Your task to perform on an android device: Search for logitech g502 on target, select the first entry, add it to the cart, then select checkout. Image 0: 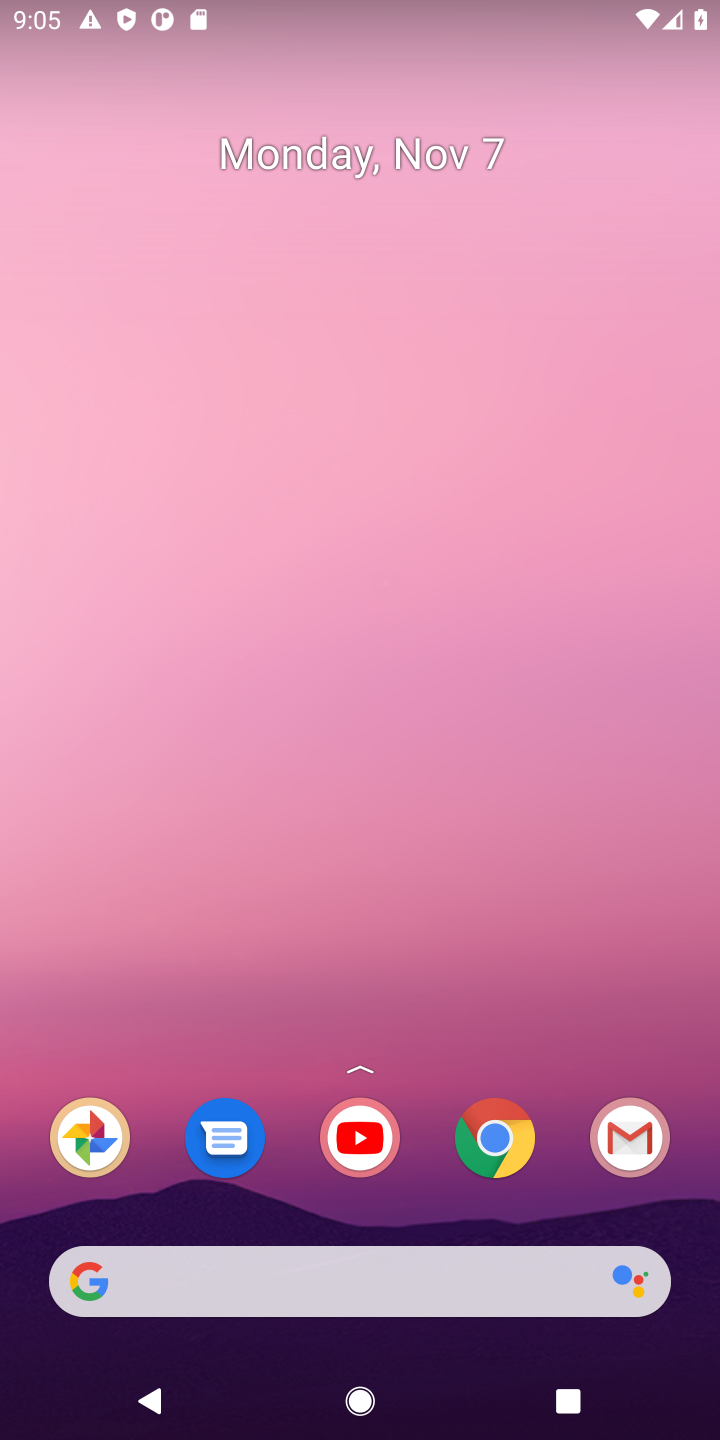
Step 0: click (430, 219)
Your task to perform on an android device: Search for logitech g502 on target, select the first entry, add it to the cart, then select checkout. Image 1: 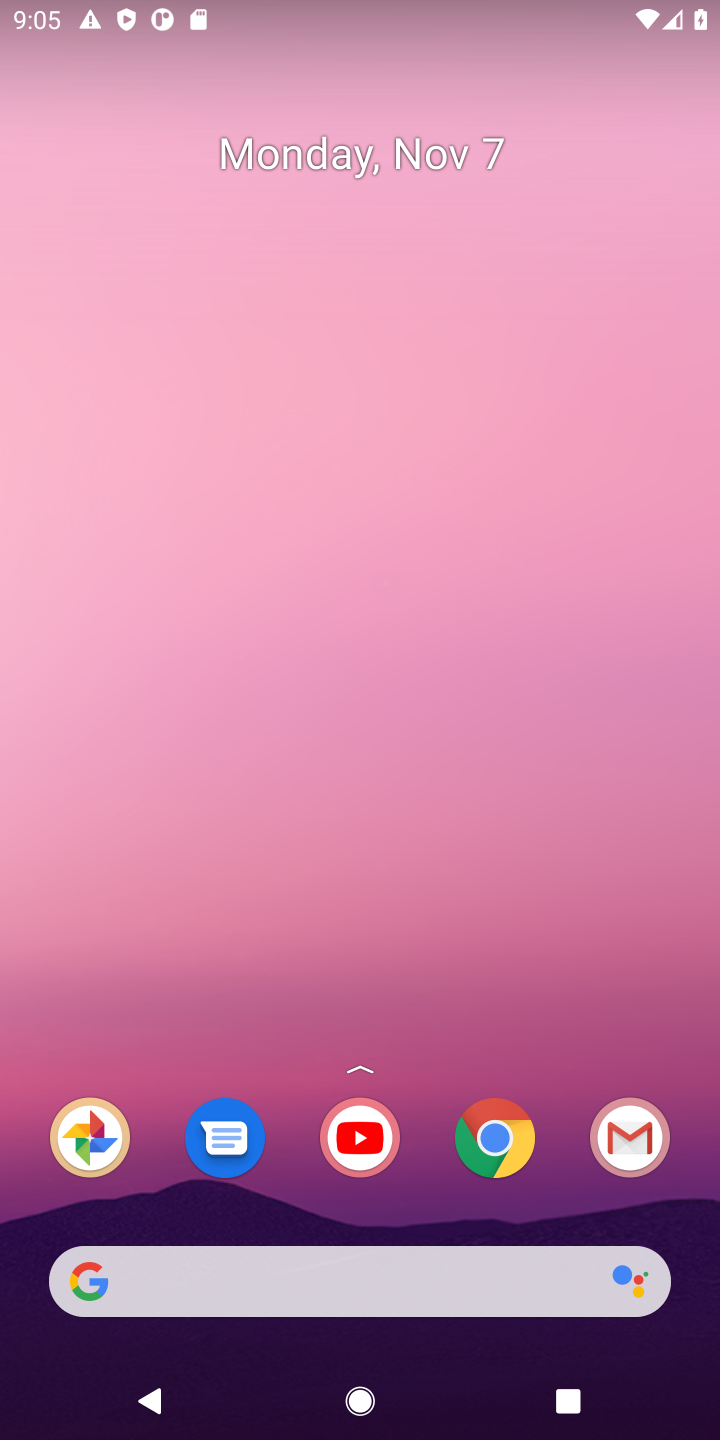
Step 1: drag from (426, 1204) to (481, 234)
Your task to perform on an android device: Search for logitech g502 on target, select the first entry, add it to the cart, then select checkout. Image 2: 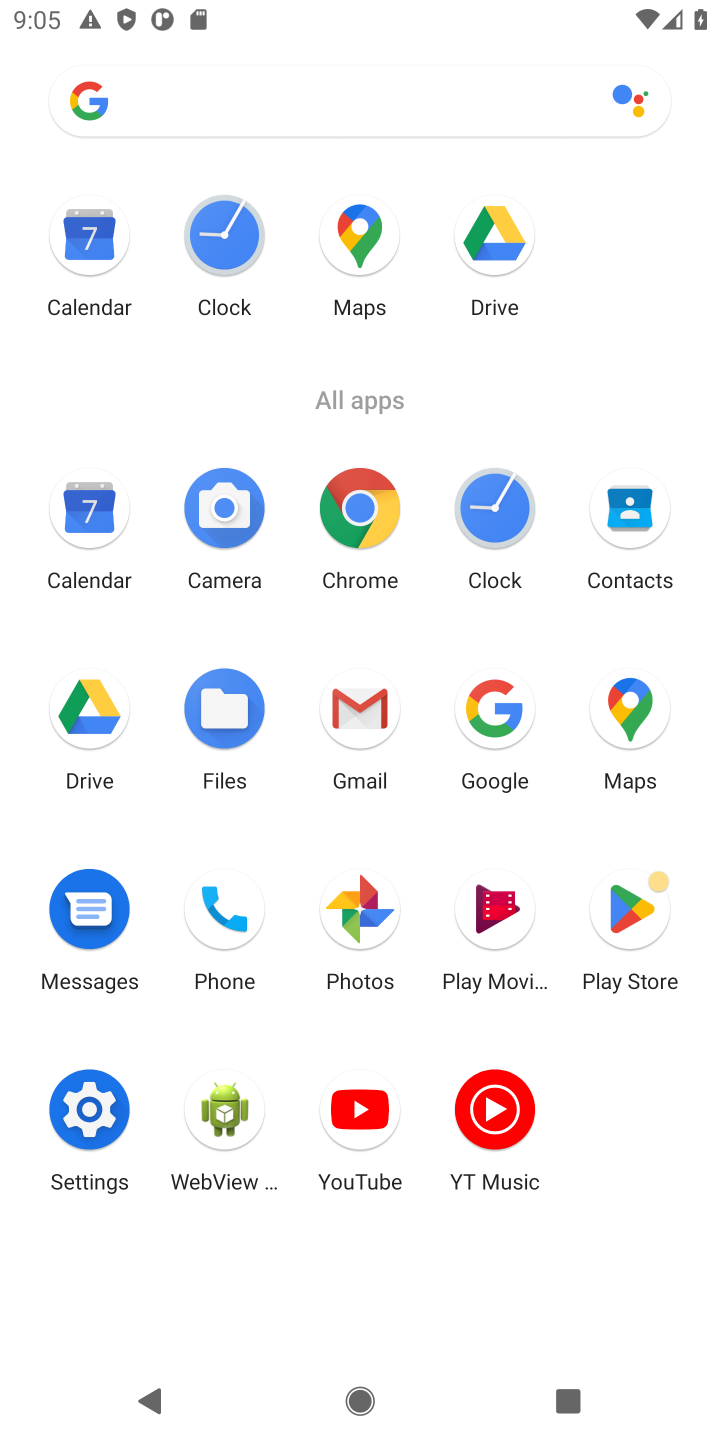
Step 2: click (364, 528)
Your task to perform on an android device: Search for logitech g502 on target, select the first entry, add it to the cart, then select checkout. Image 3: 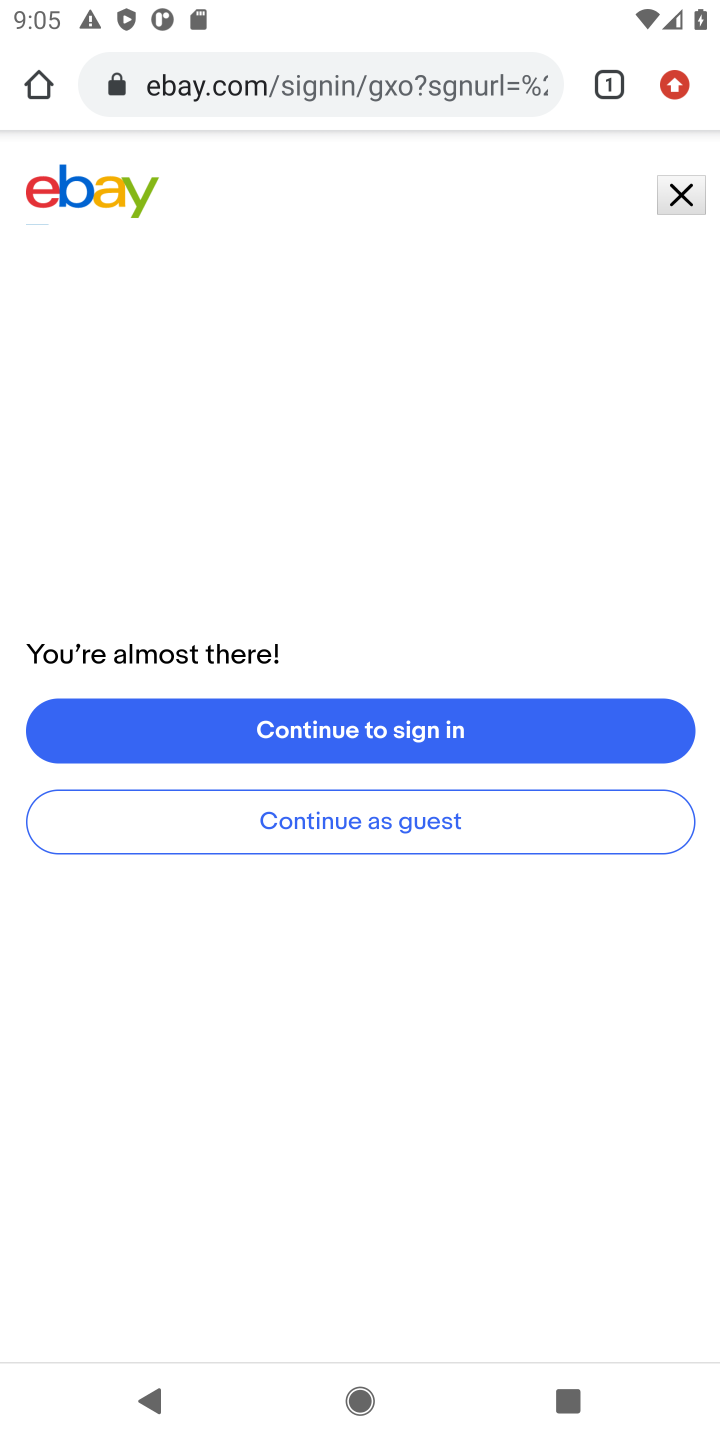
Step 3: click (399, 92)
Your task to perform on an android device: Search for logitech g502 on target, select the first entry, add it to the cart, then select checkout. Image 4: 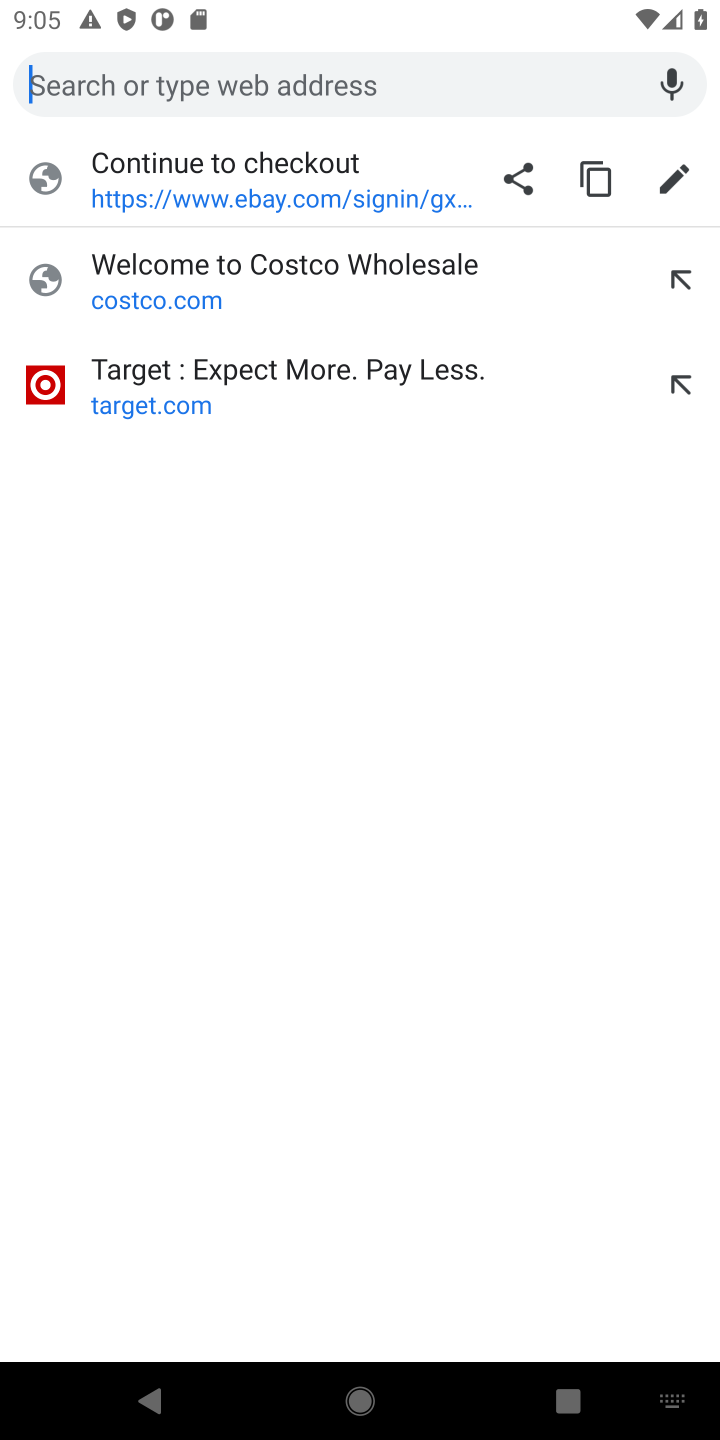
Step 4: type "target.com"
Your task to perform on an android device: Search for logitech g502 on target, select the first entry, add it to the cart, then select checkout. Image 5: 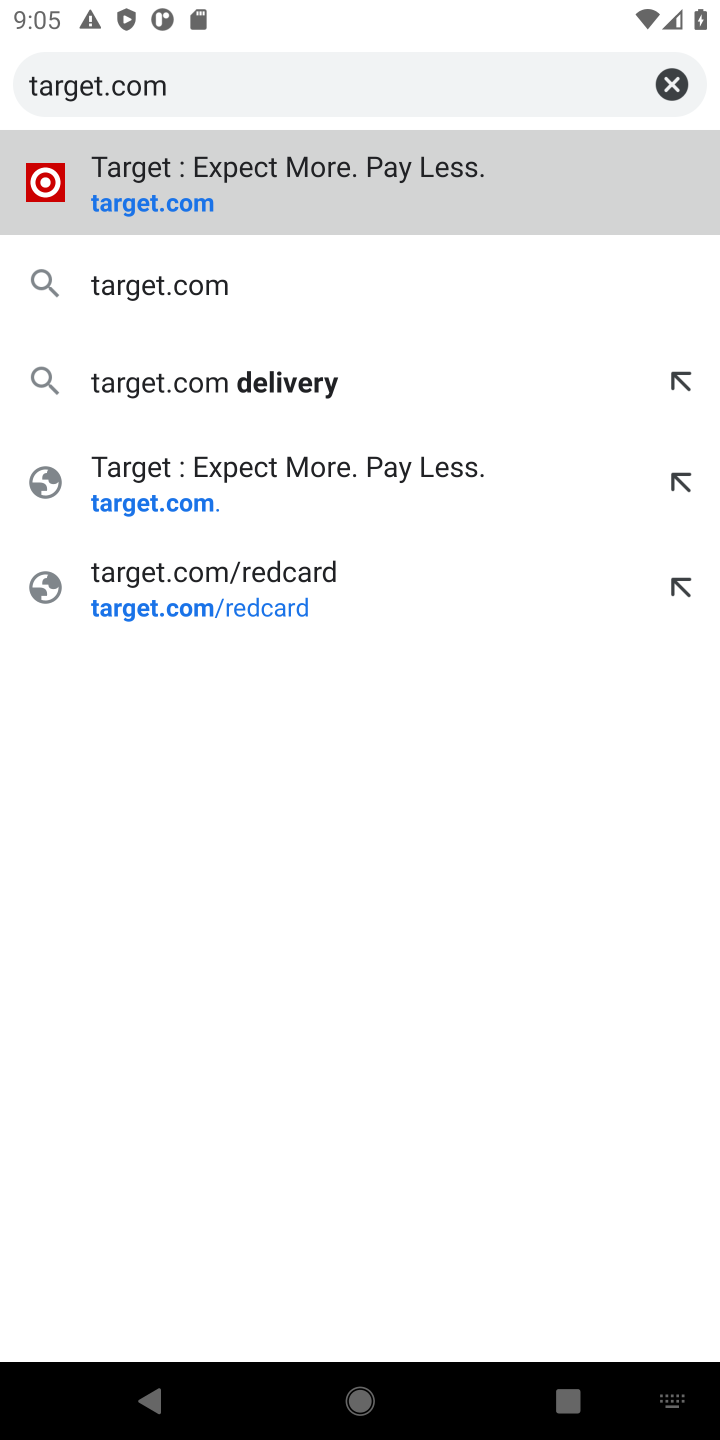
Step 5: press enter
Your task to perform on an android device: Search for logitech g502 on target, select the first entry, add it to the cart, then select checkout. Image 6: 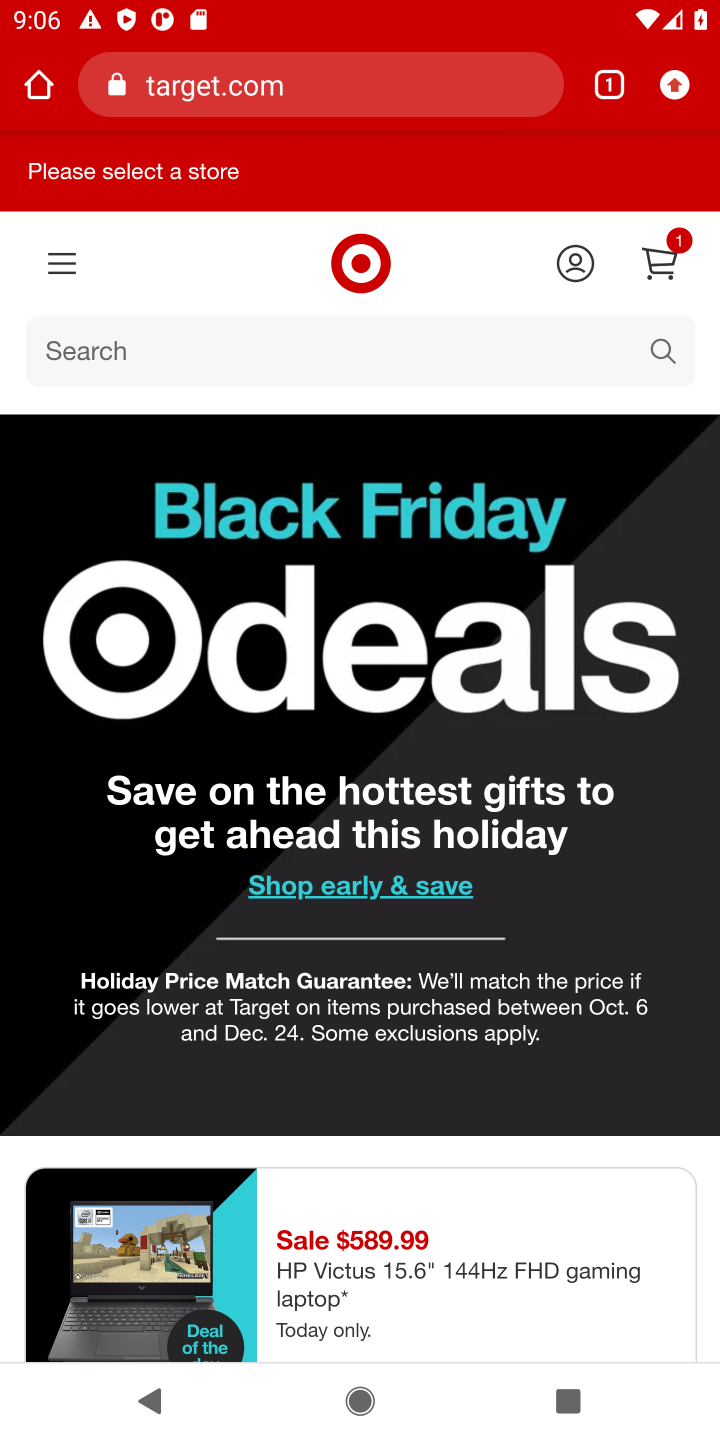
Step 6: click (264, 339)
Your task to perform on an android device: Search for logitech g502 on target, select the first entry, add it to the cart, then select checkout. Image 7: 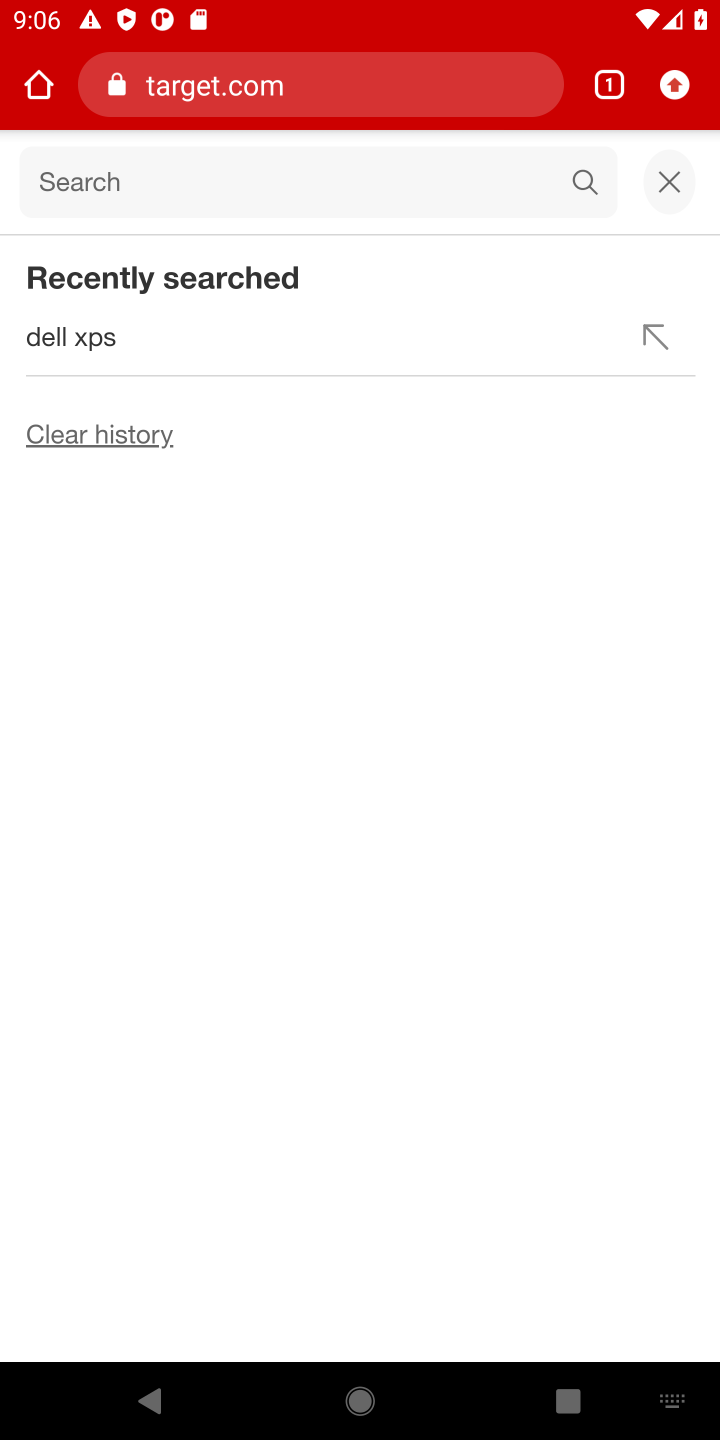
Step 7: type "logitech 502"
Your task to perform on an android device: Search for logitech g502 on target, select the first entry, add it to the cart, then select checkout. Image 8: 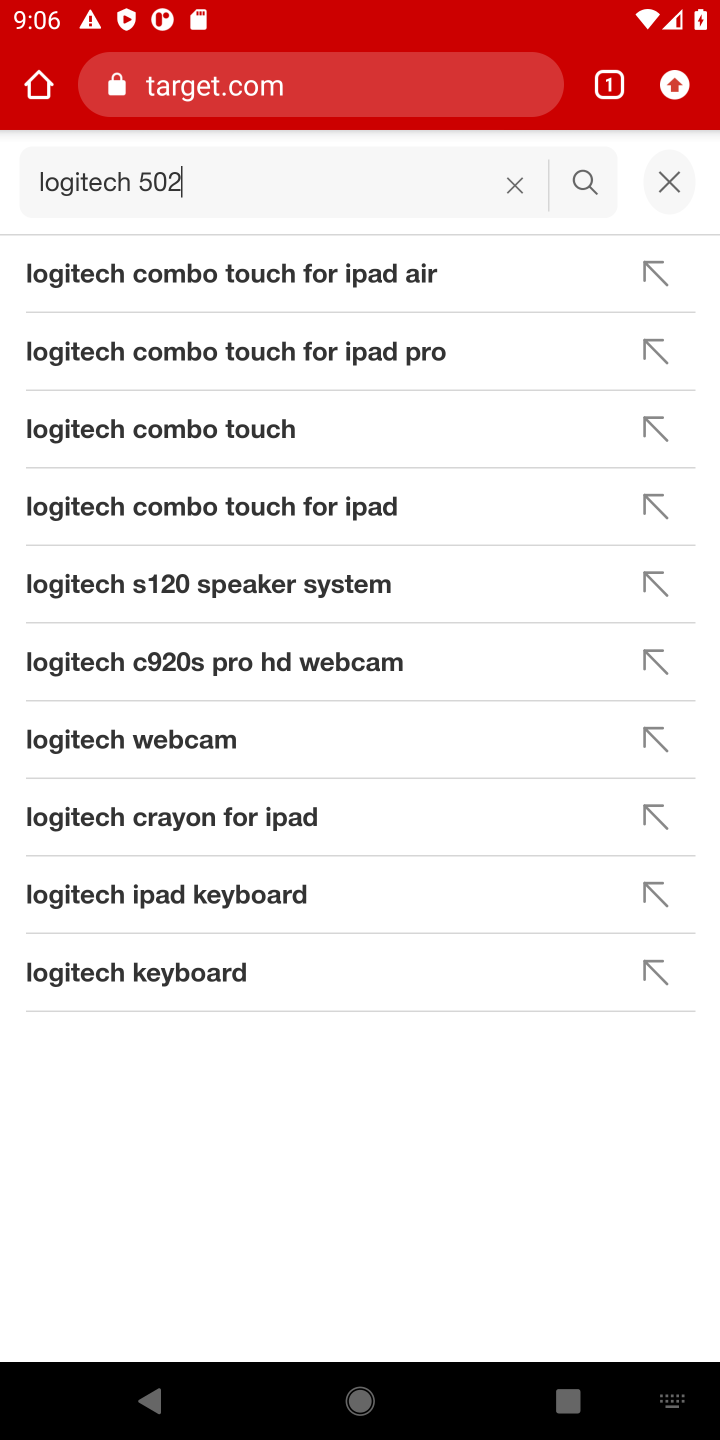
Step 8: click (143, 167)
Your task to perform on an android device: Search for logitech g502 on target, select the first entry, add it to the cart, then select checkout. Image 9: 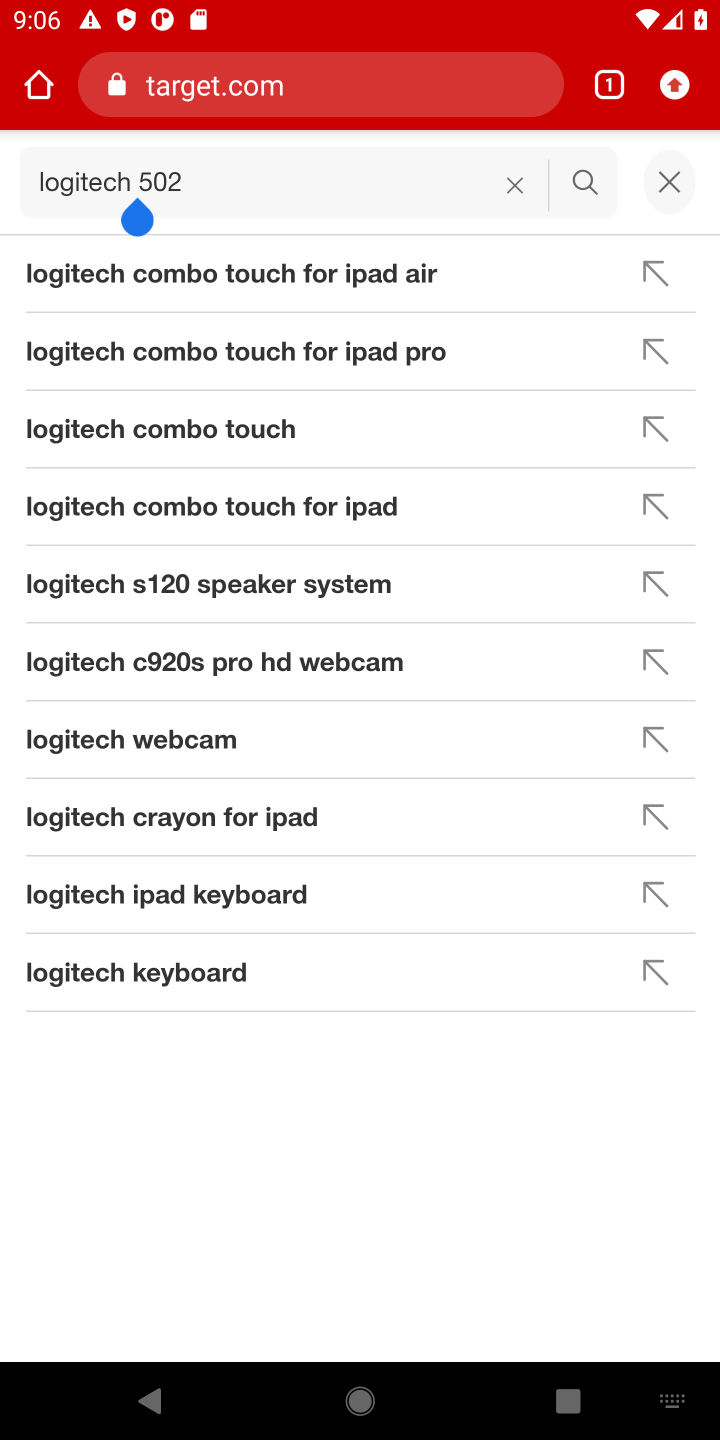
Step 9: type "g"
Your task to perform on an android device: Search for logitech g502 on target, select the first entry, add it to the cart, then select checkout. Image 10: 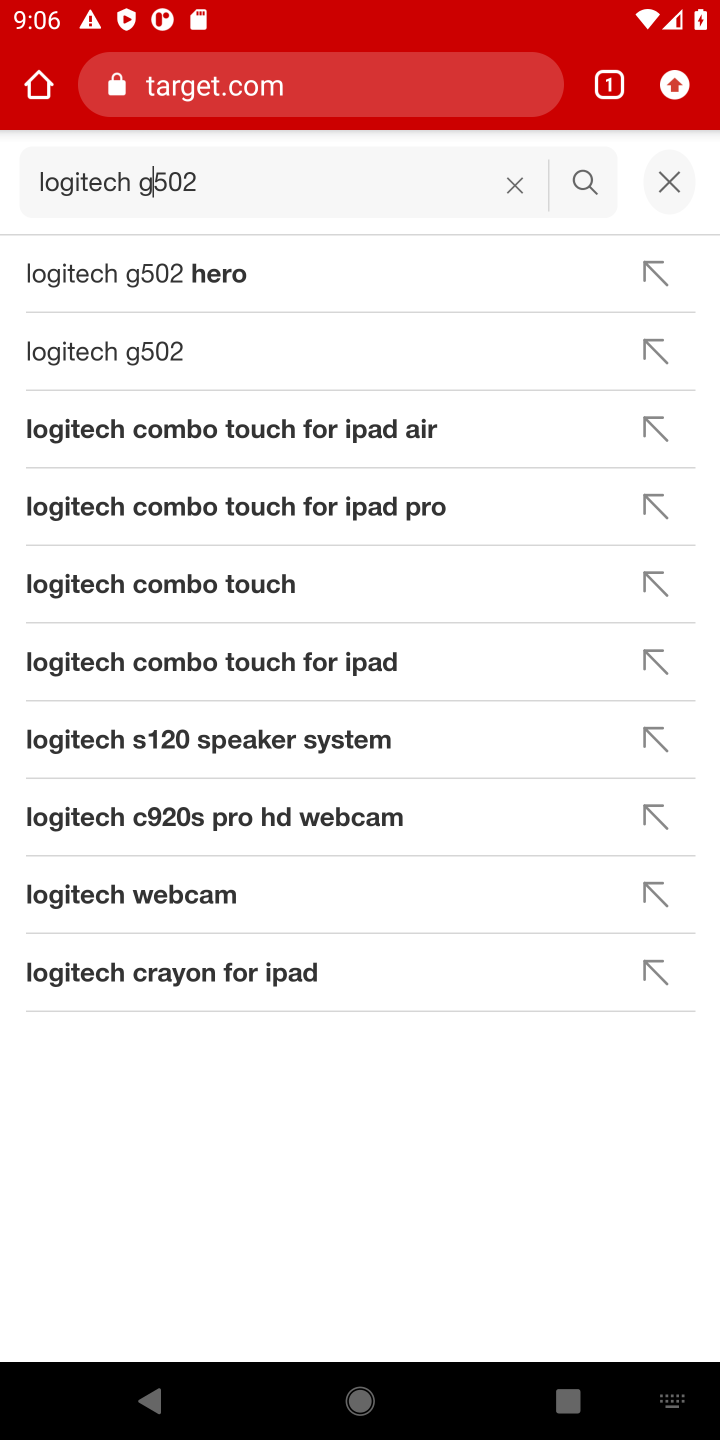
Step 10: press enter
Your task to perform on an android device: Search for logitech g502 on target, select the first entry, add it to the cart, then select checkout. Image 11: 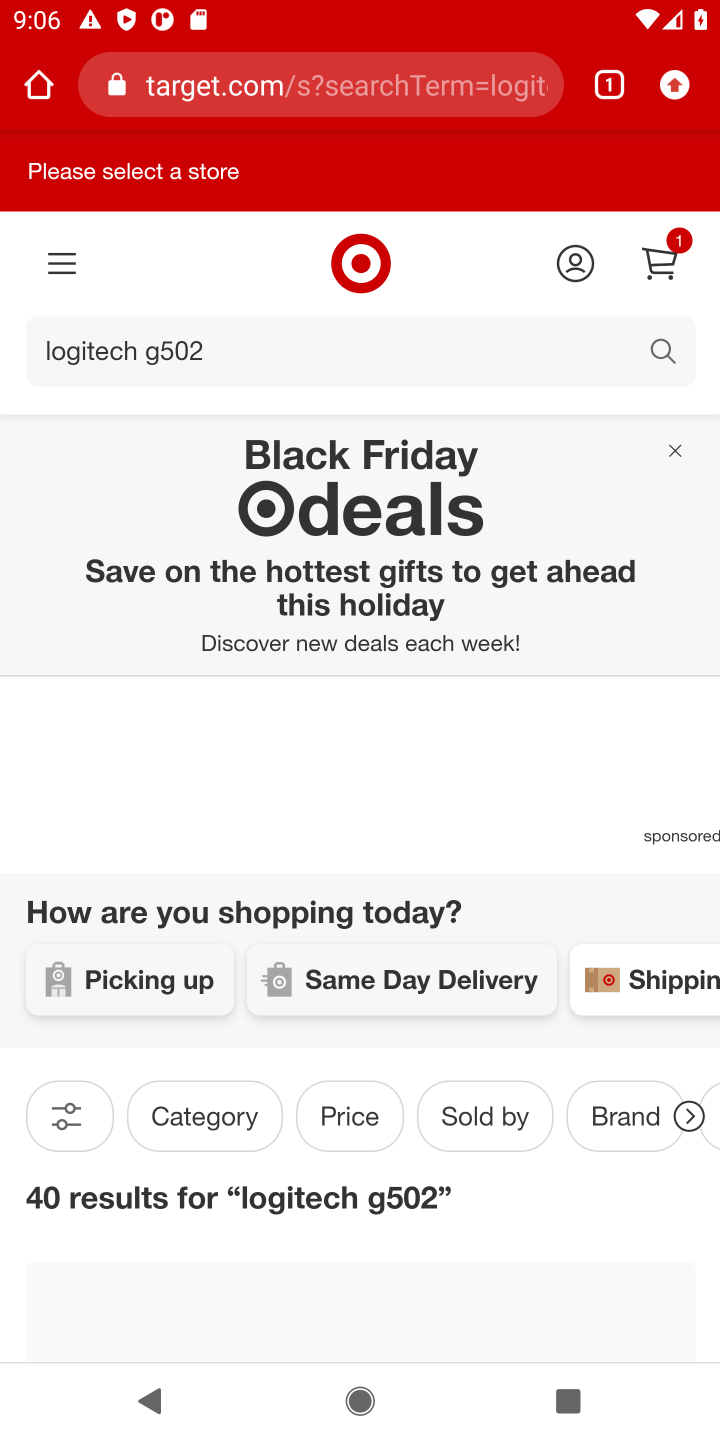
Step 11: drag from (431, 1221) to (426, 717)
Your task to perform on an android device: Search for logitech g502 on target, select the first entry, add it to the cart, then select checkout. Image 12: 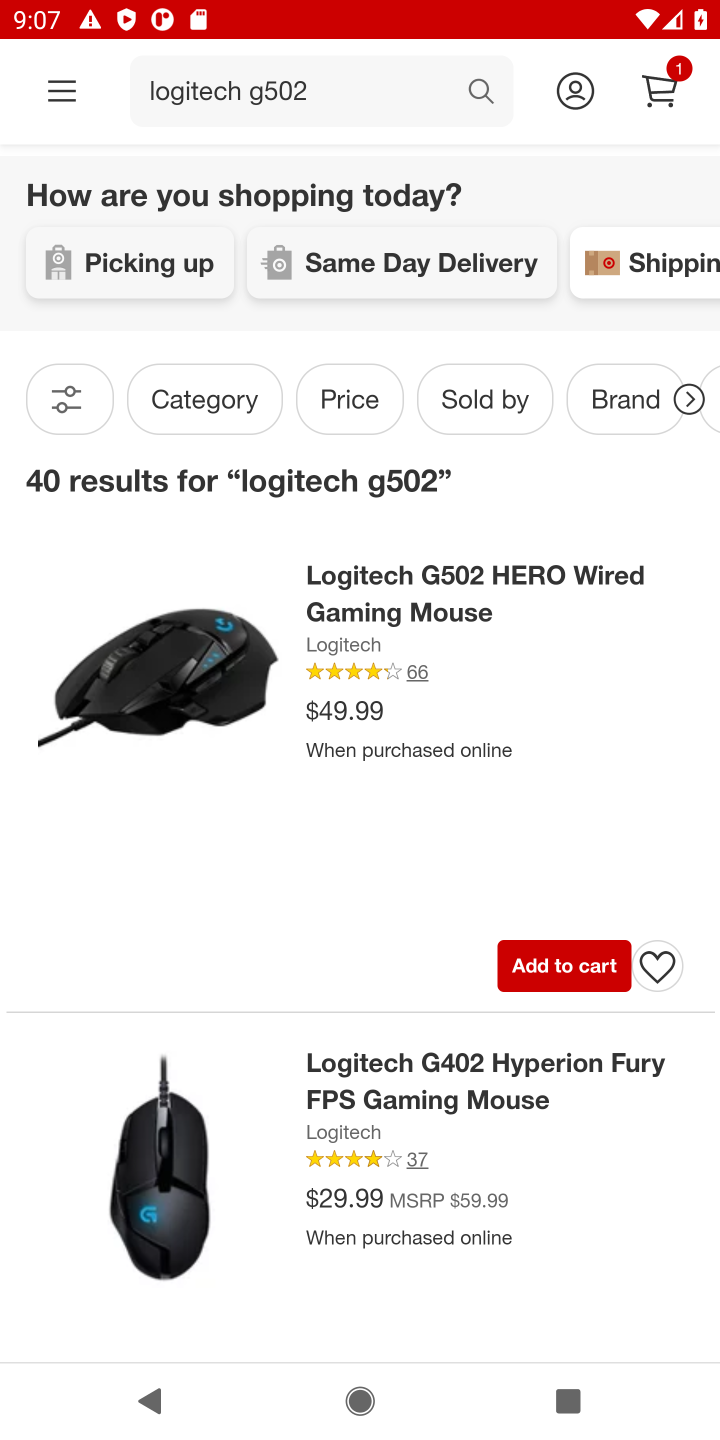
Step 12: click (548, 960)
Your task to perform on an android device: Search for logitech g502 on target, select the first entry, add it to the cart, then select checkout. Image 13: 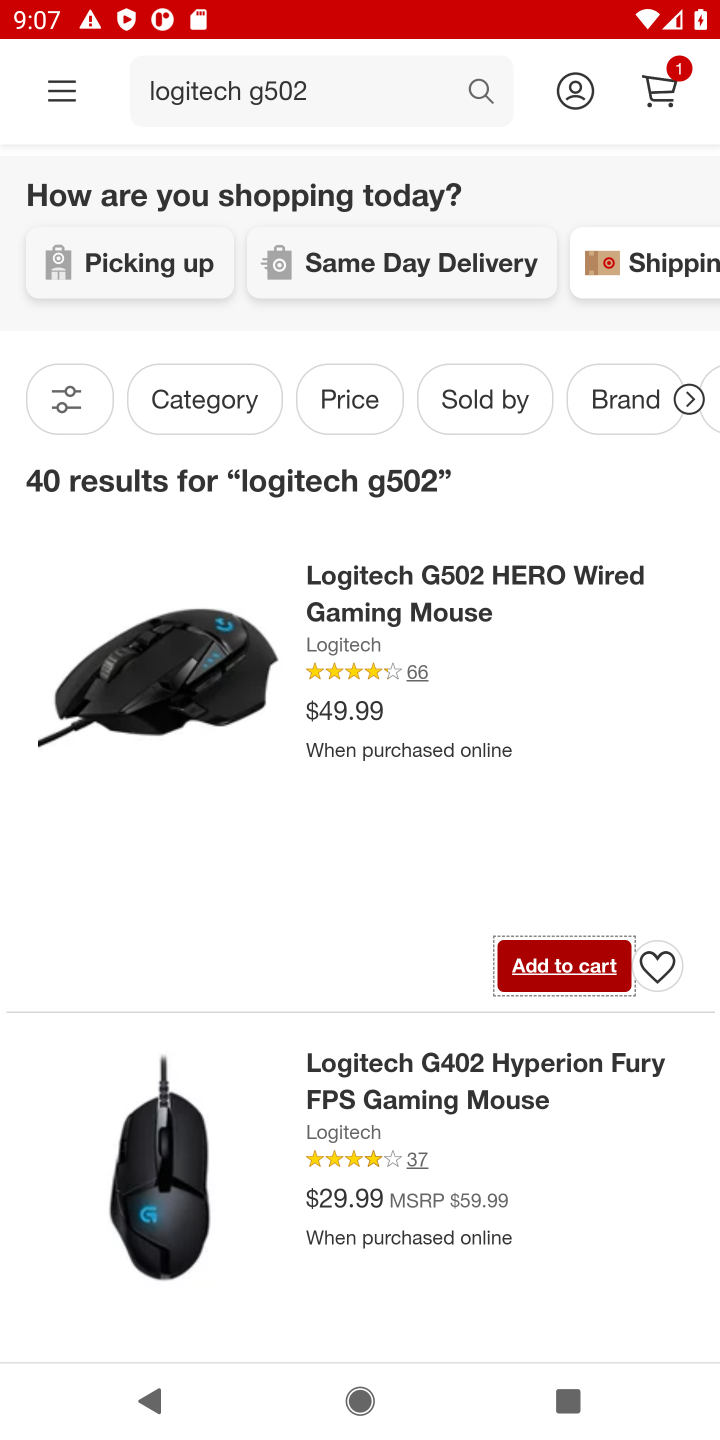
Step 13: click (532, 973)
Your task to perform on an android device: Search for logitech g502 on target, select the first entry, add it to the cart, then select checkout. Image 14: 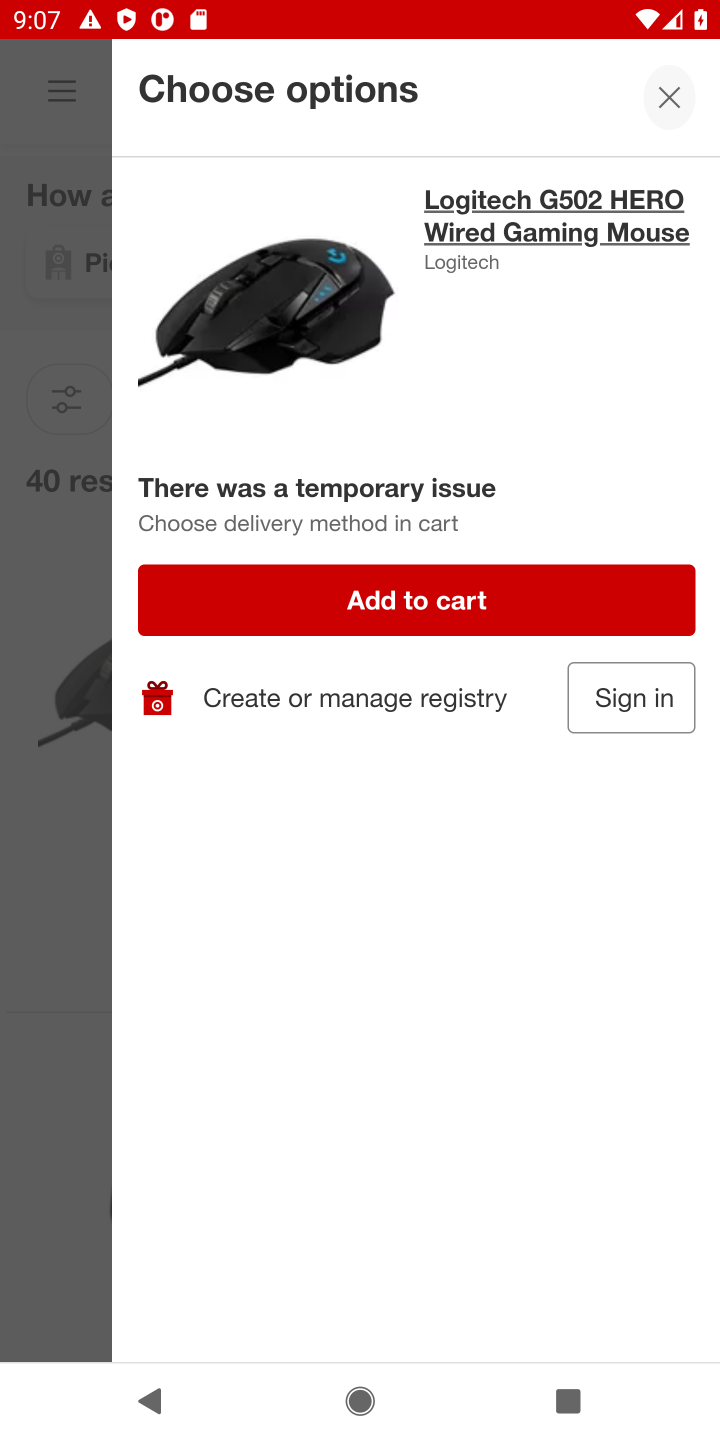
Step 14: click (484, 595)
Your task to perform on an android device: Search for logitech g502 on target, select the first entry, add it to the cart, then select checkout. Image 15: 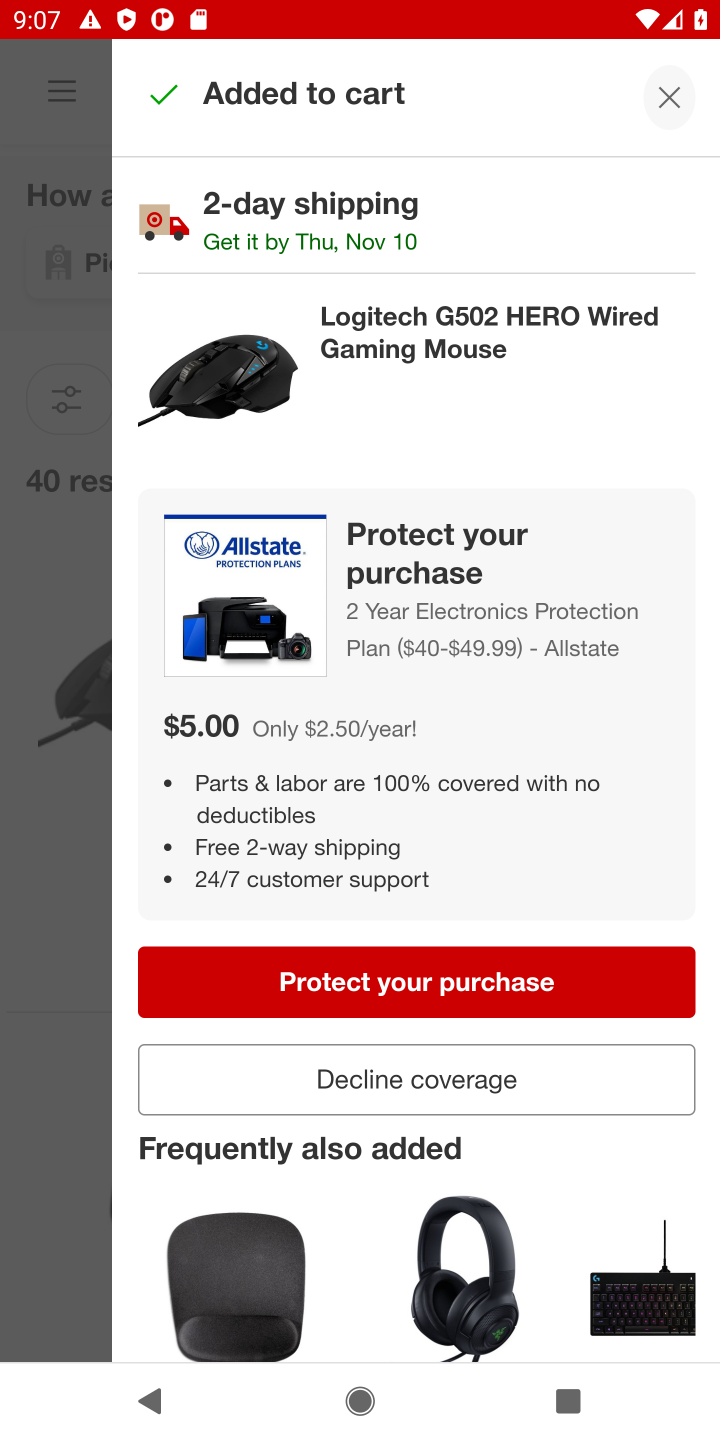
Step 15: click (656, 89)
Your task to perform on an android device: Search for logitech g502 on target, select the first entry, add it to the cart, then select checkout. Image 16: 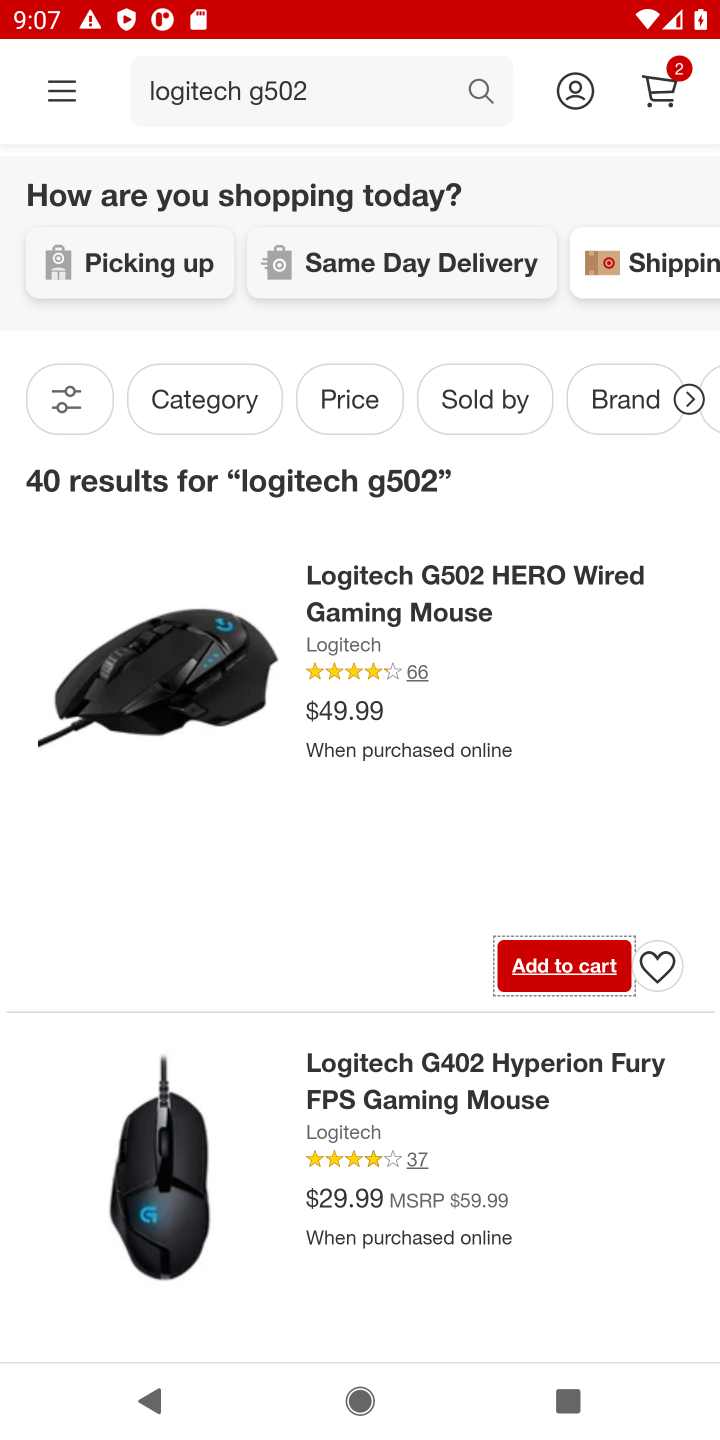
Step 16: click (656, 89)
Your task to perform on an android device: Search for logitech g502 on target, select the first entry, add it to the cart, then select checkout. Image 17: 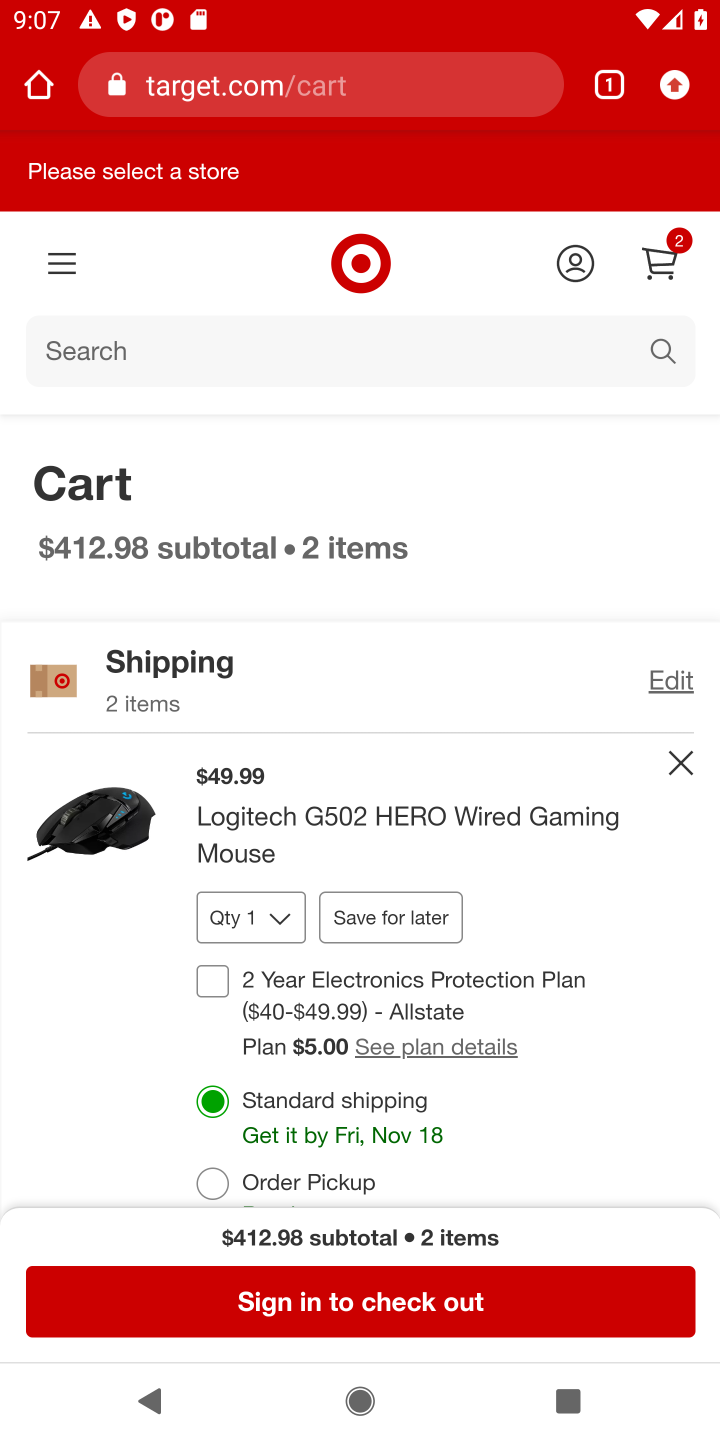
Step 17: click (407, 1287)
Your task to perform on an android device: Search for logitech g502 on target, select the first entry, add it to the cart, then select checkout. Image 18: 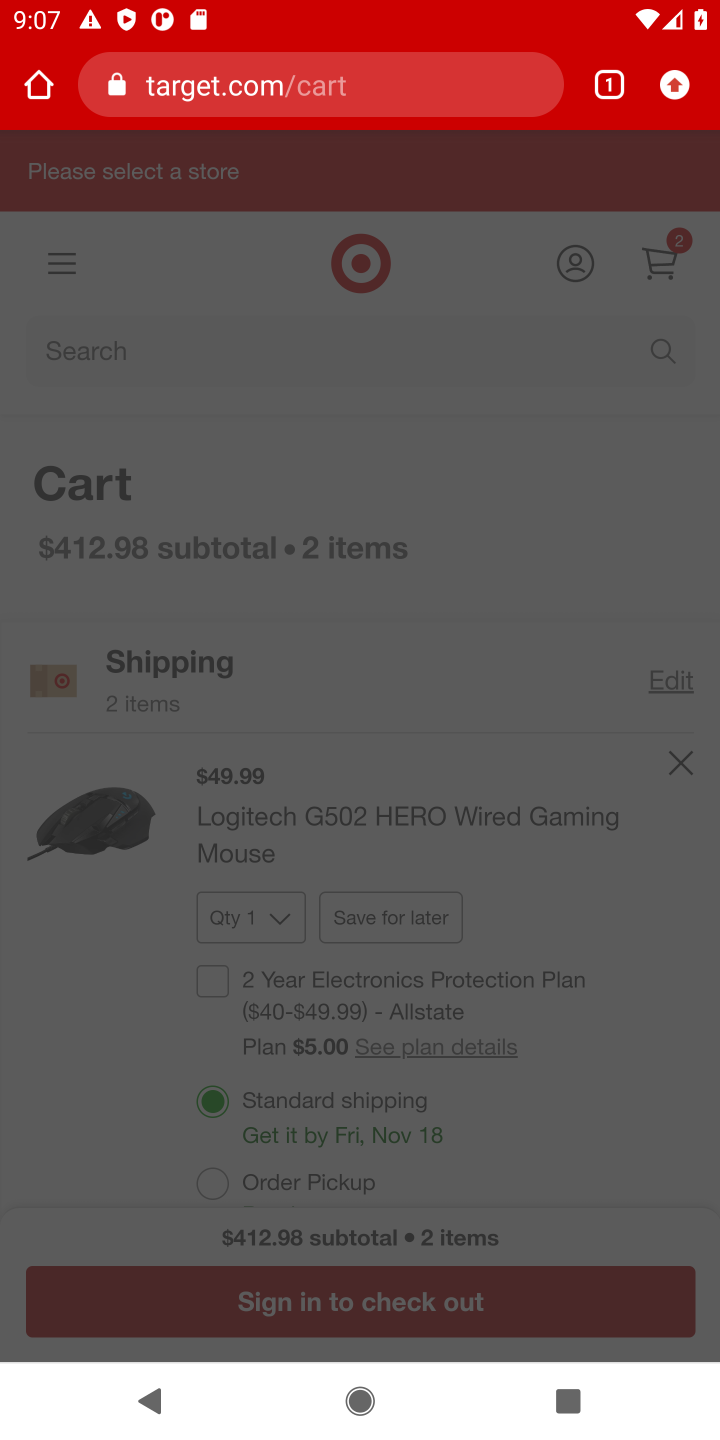
Step 18: task complete